Your task to perform on an android device: Open Chrome and go to settings Image 0: 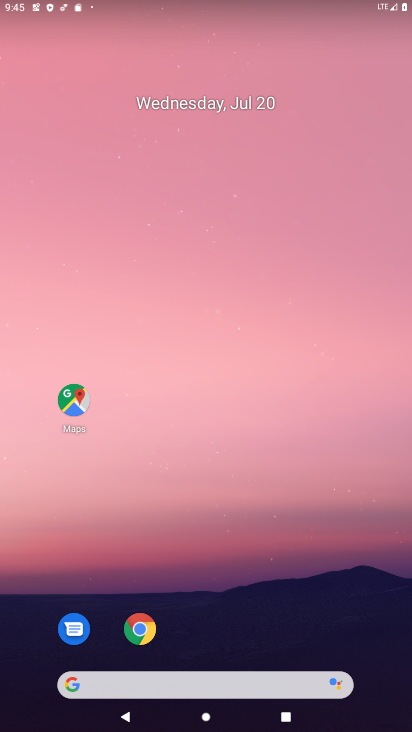
Step 0: drag from (250, 1) to (283, 60)
Your task to perform on an android device: Open Chrome and go to settings Image 1: 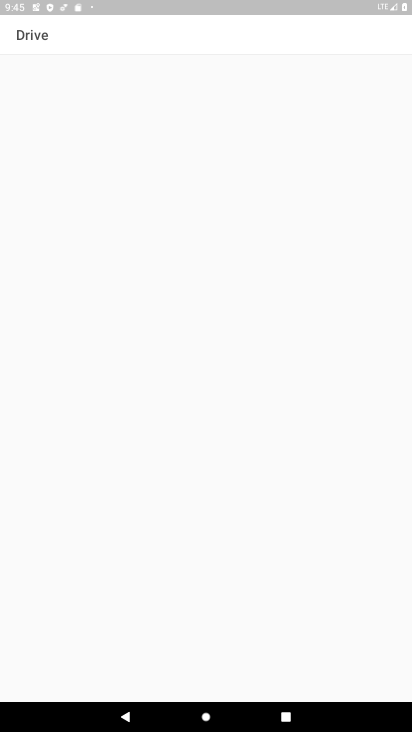
Step 1: press home button
Your task to perform on an android device: Open Chrome and go to settings Image 2: 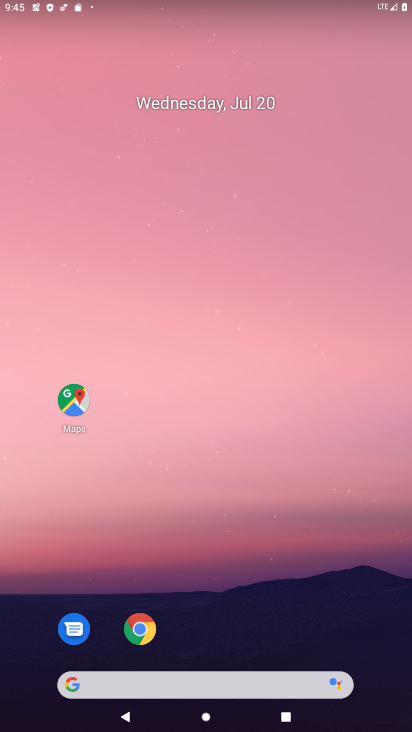
Step 2: drag from (317, 617) to (314, 0)
Your task to perform on an android device: Open Chrome and go to settings Image 3: 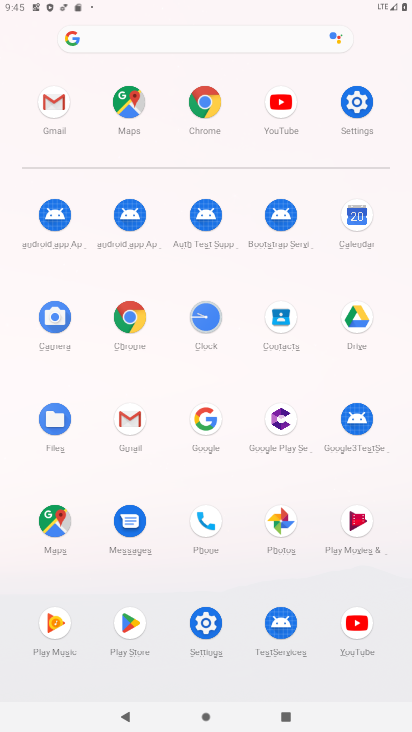
Step 3: click (196, 104)
Your task to perform on an android device: Open Chrome and go to settings Image 4: 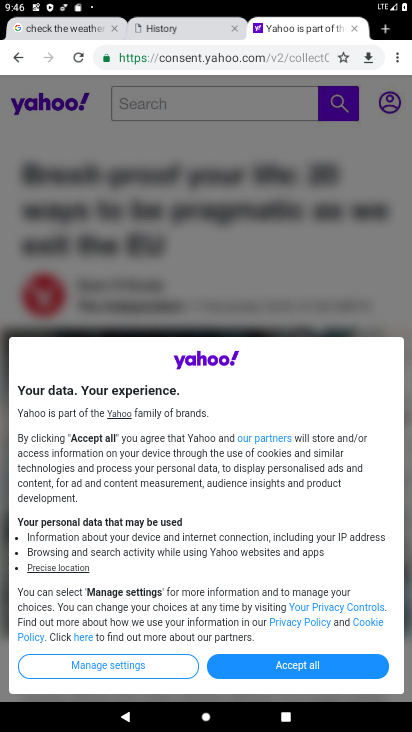
Step 4: task complete